Your task to perform on an android device: Is it going to rain this weekend? Image 0: 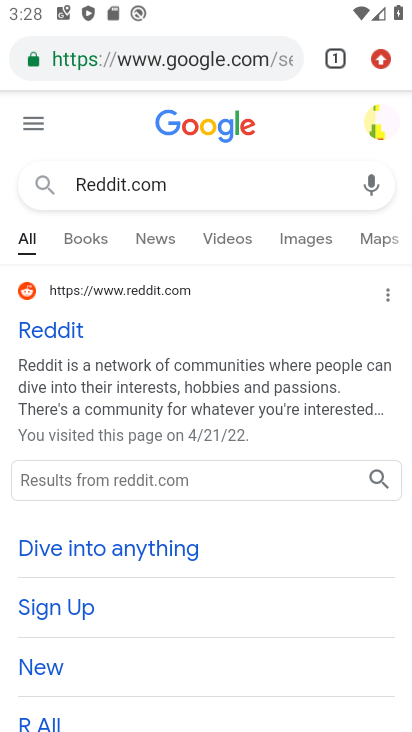
Step 0: press home button
Your task to perform on an android device: Is it going to rain this weekend? Image 1: 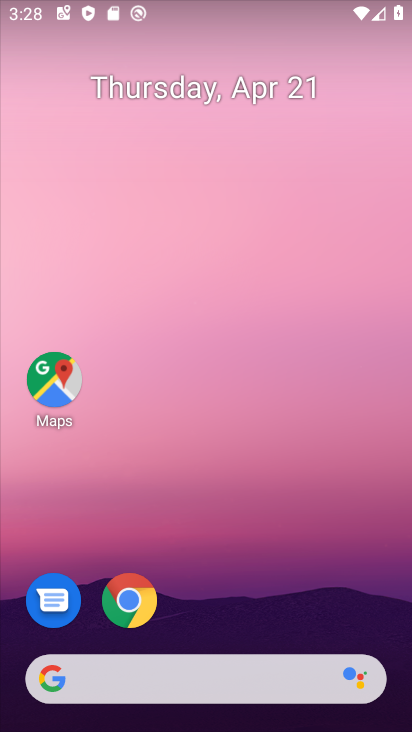
Step 1: drag from (213, 634) to (243, 59)
Your task to perform on an android device: Is it going to rain this weekend? Image 2: 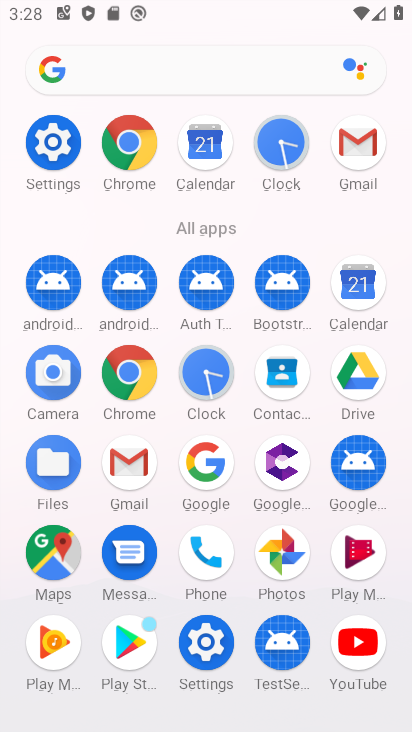
Step 2: click (205, 459)
Your task to perform on an android device: Is it going to rain this weekend? Image 3: 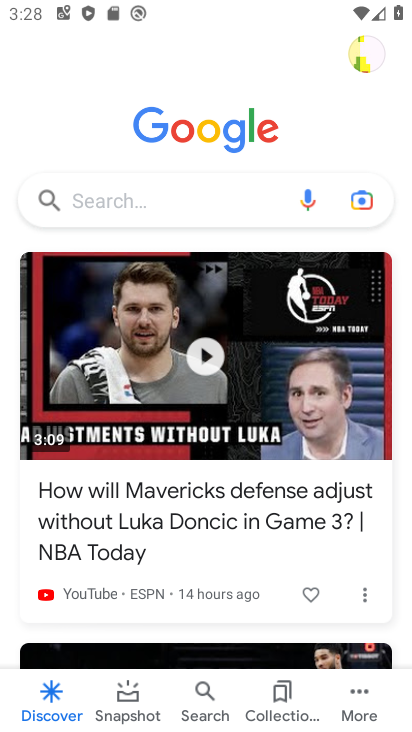
Step 3: click (152, 202)
Your task to perform on an android device: Is it going to rain this weekend? Image 4: 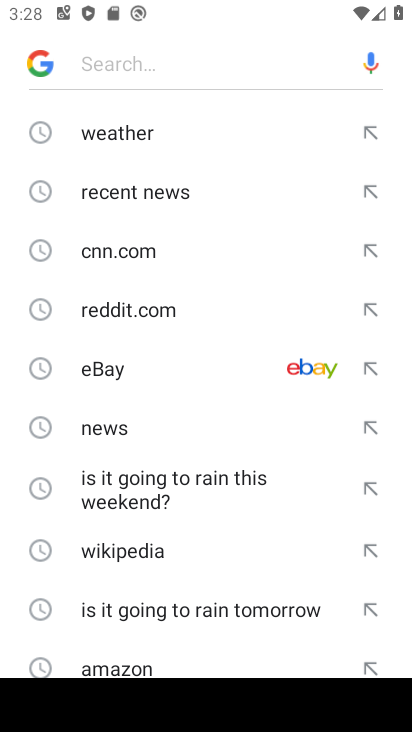
Step 4: click (201, 480)
Your task to perform on an android device: Is it going to rain this weekend? Image 5: 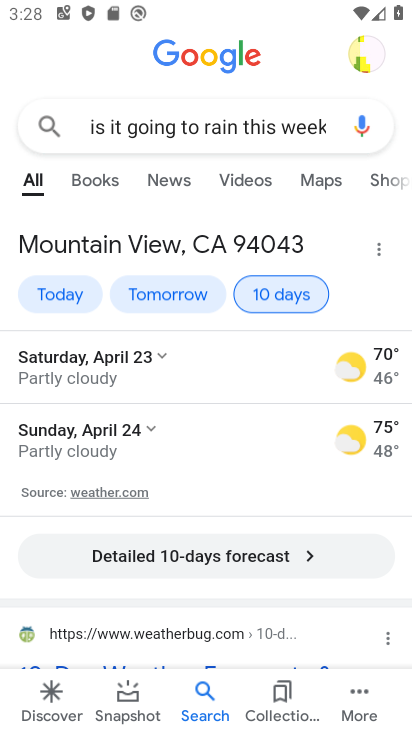
Step 5: task complete